Your task to perform on an android device: Search for logitech g pro on target.com, select the first entry, add it to the cart, then select checkout. Image 0: 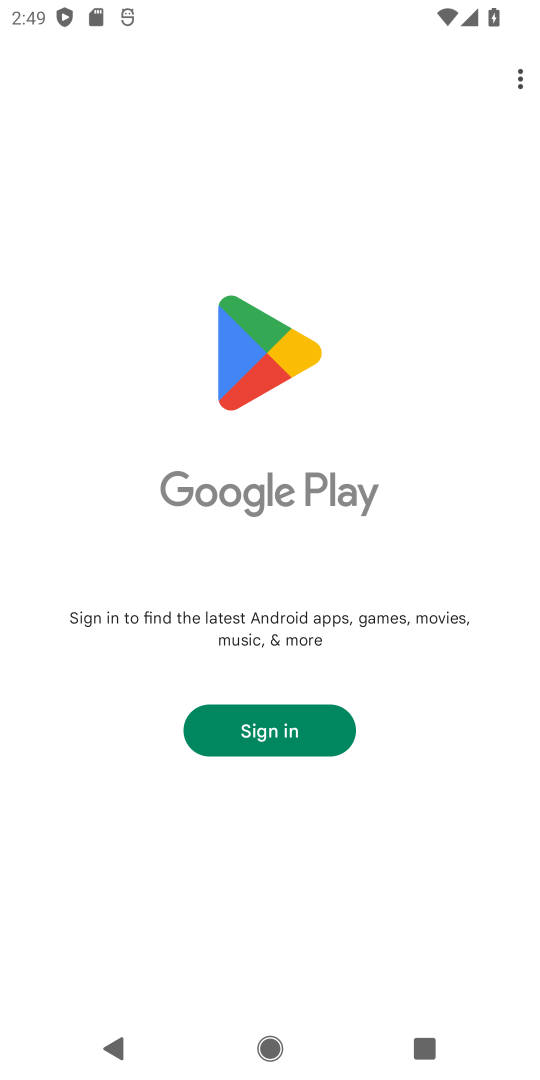
Step 0: press home button
Your task to perform on an android device: Search for logitech g pro on target.com, select the first entry, add it to the cart, then select checkout. Image 1: 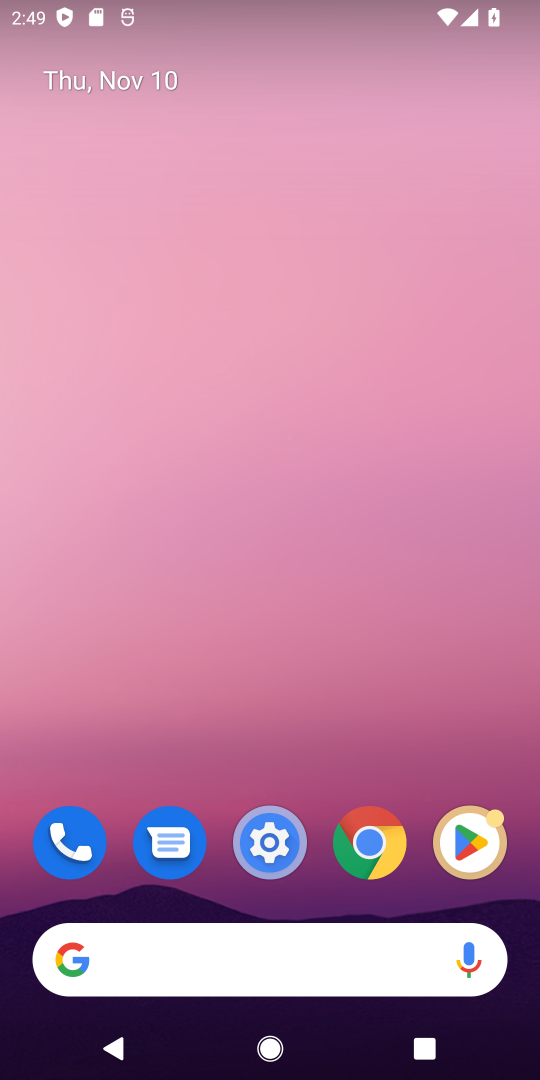
Step 1: click (185, 953)
Your task to perform on an android device: Search for logitech g pro on target.com, select the first entry, add it to the cart, then select checkout. Image 2: 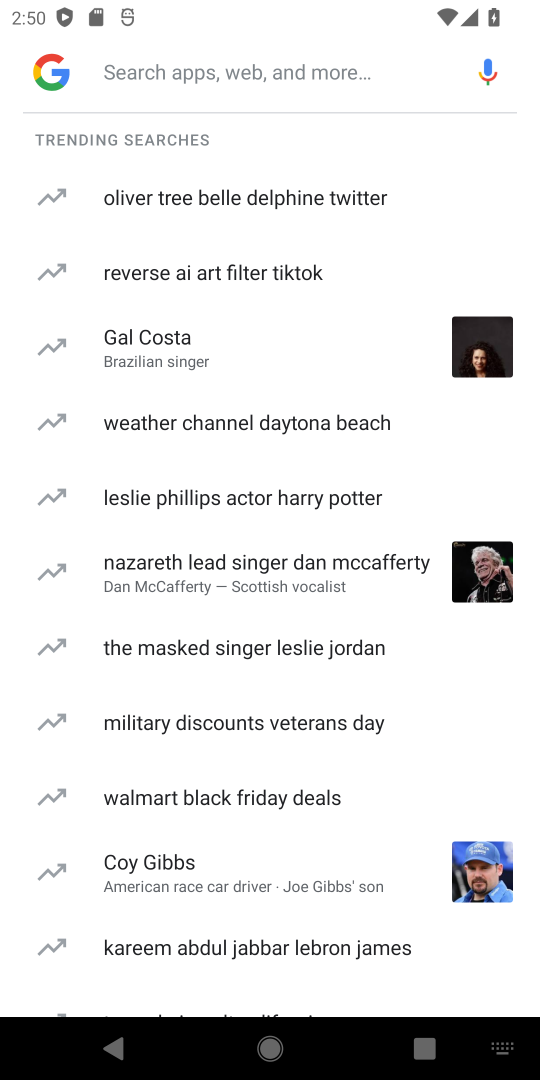
Step 2: type " target.com,"
Your task to perform on an android device: Search for logitech g pro on target.com, select the first entry, add it to the cart, then select checkout. Image 3: 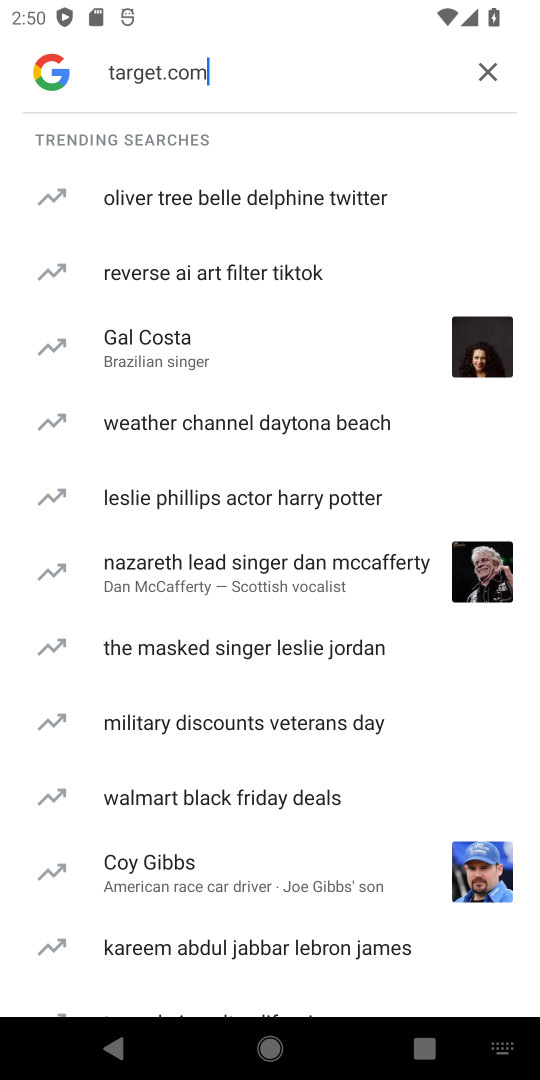
Step 3: press enter
Your task to perform on an android device: Search for logitech g pro on target.com, select the first entry, add it to the cart, then select checkout. Image 4: 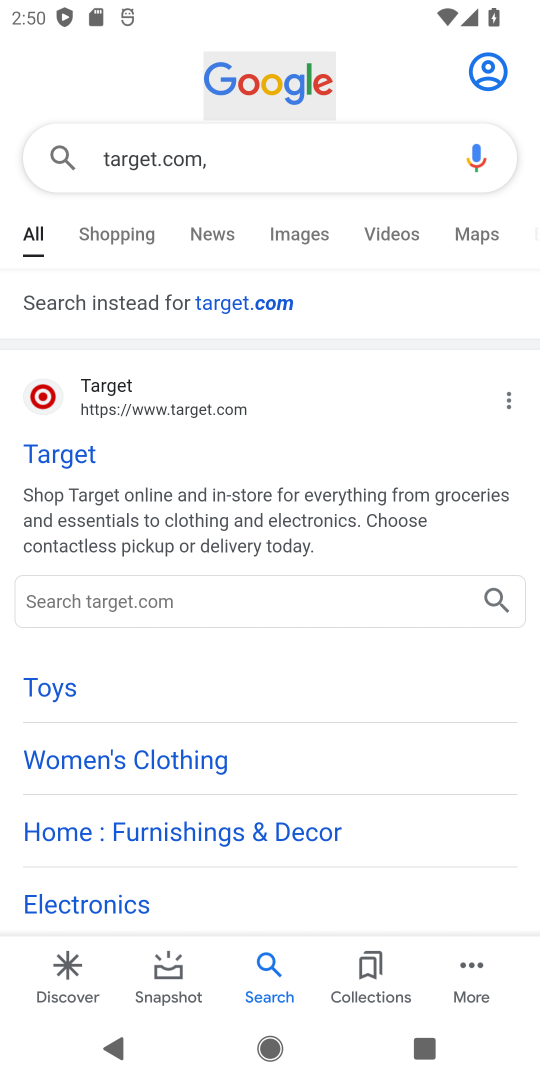
Step 4: click (58, 447)
Your task to perform on an android device: Search for logitech g pro on target.com, select the first entry, add it to the cart, then select checkout. Image 5: 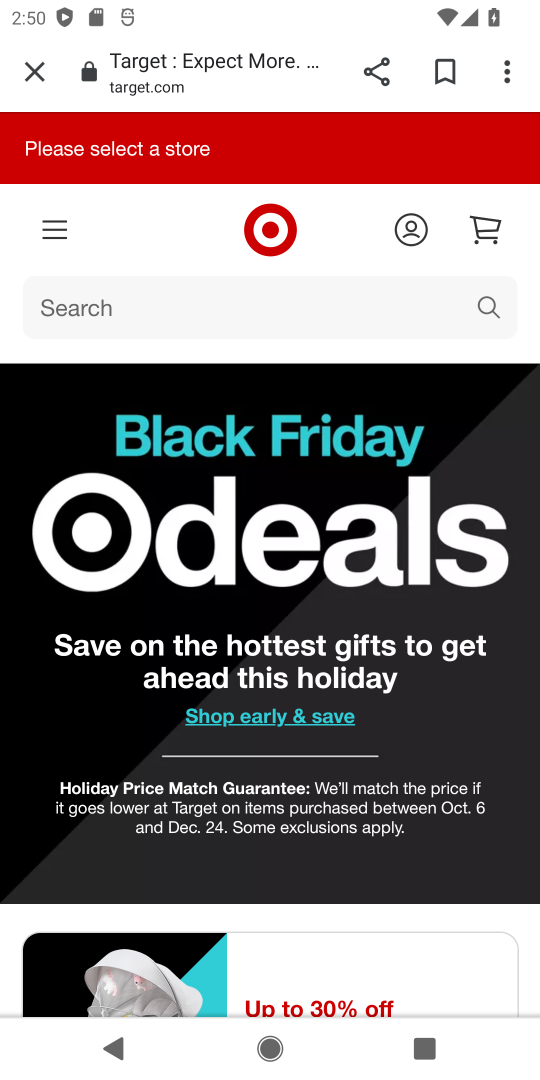
Step 5: click (83, 318)
Your task to perform on an android device: Search for logitech g pro on target.com, select the first entry, add it to the cart, then select checkout. Image 6: 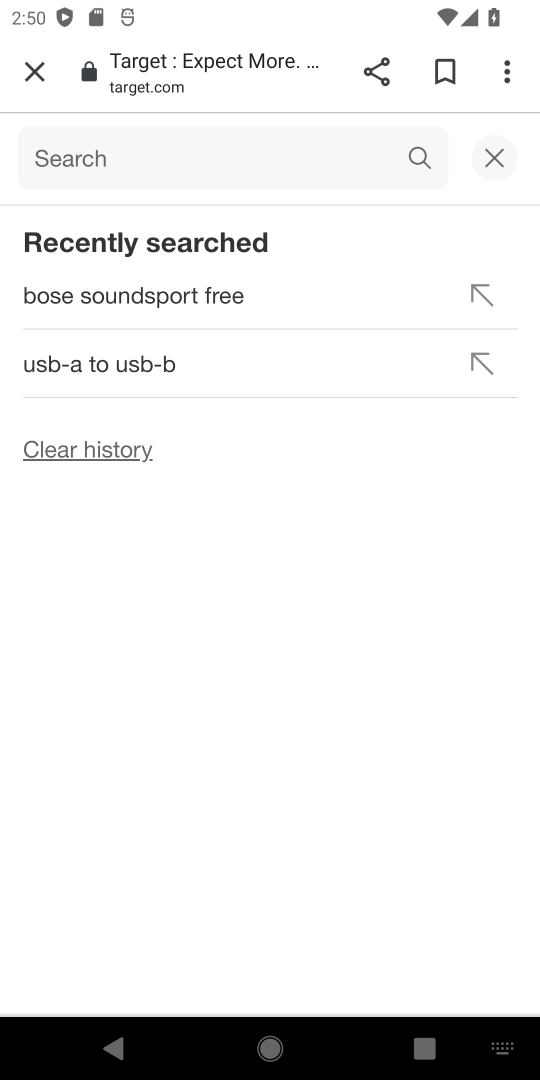
Step 6: type "logitech g pro"
Your task to perform on an android device: Search for logitech g pro on target.com, select the first entry, add it to the cart, then select checkout. Image 7: 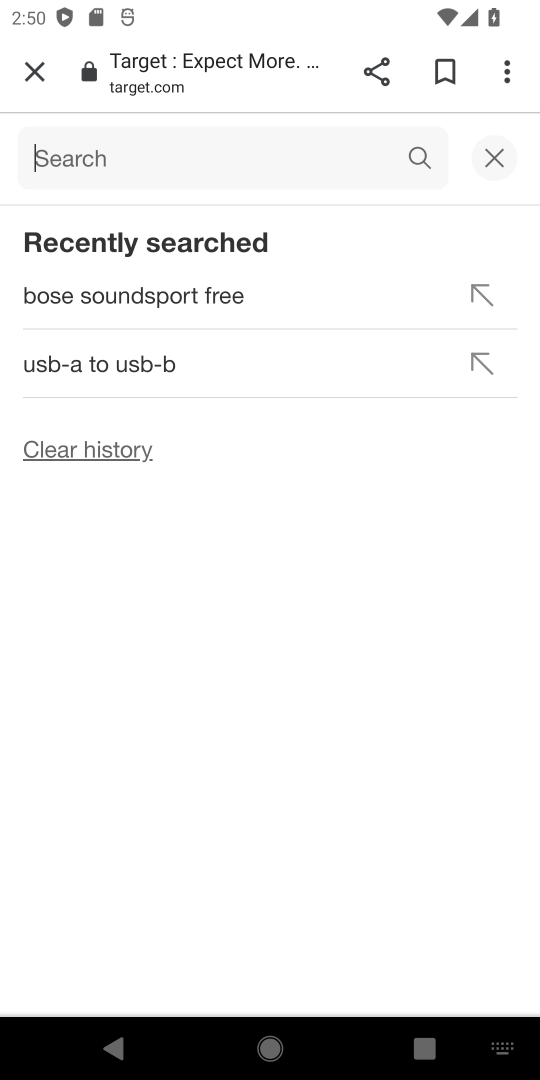
Step 7: press enter
Your task to perform on an android device: Search for logitech g pro on target.com, select the first entry, add it to the cart, then select checkout. Image 8: 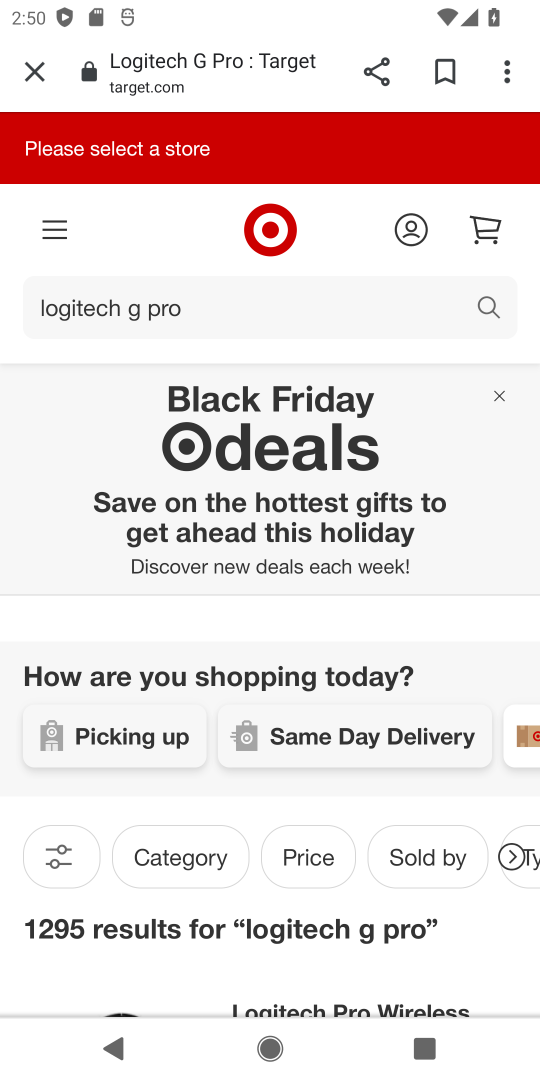
Step 8: drag from (338, 933) to (332, 397)
Your task to perform on an android device: Search for logitech g pro on target.com, select the first entry, add it to the cart, then select checkout. Image 9: 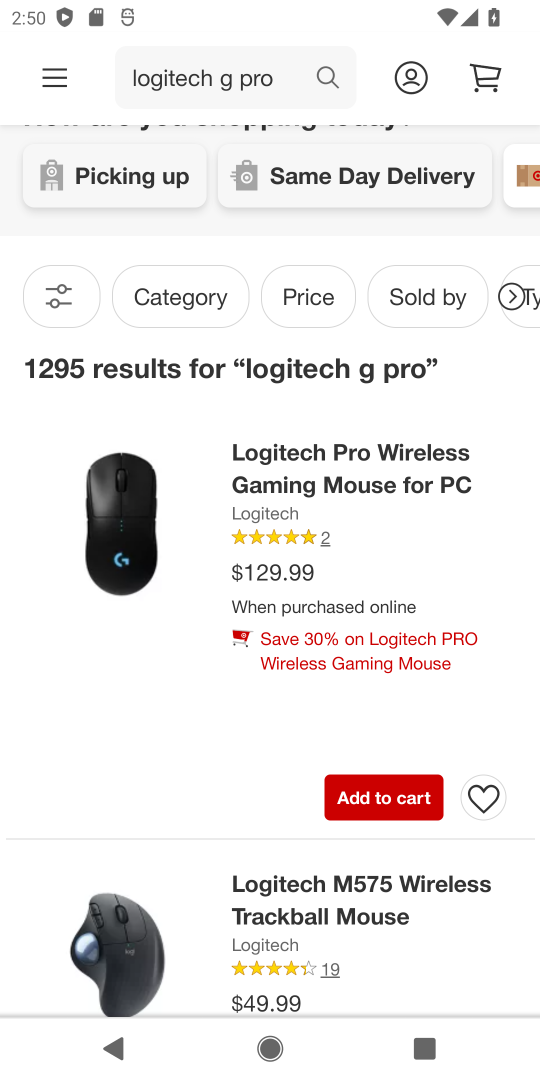
Step 9: drag from (259, 915) to (269, 636)
Your task to perform on an android device: Search for logitech g pro on target.com, select the first entry, add it to the cart, then select checkout. Image 10: 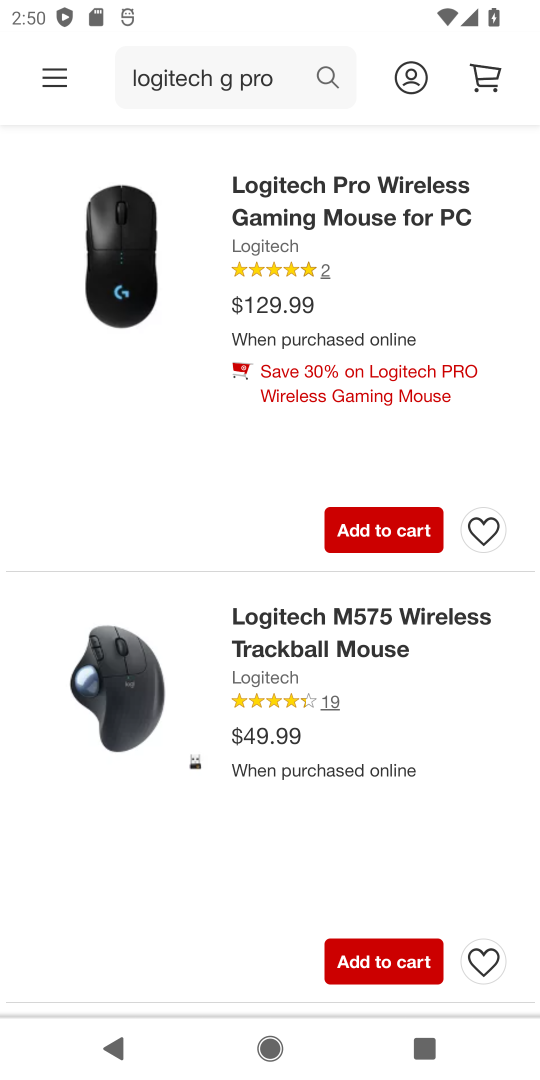
Step 10: click (372, 532)
Your task to perform on an android device: Search for logitech g pro on target.com, select the first entry, add it to the cart, then select checkout. Image 11: 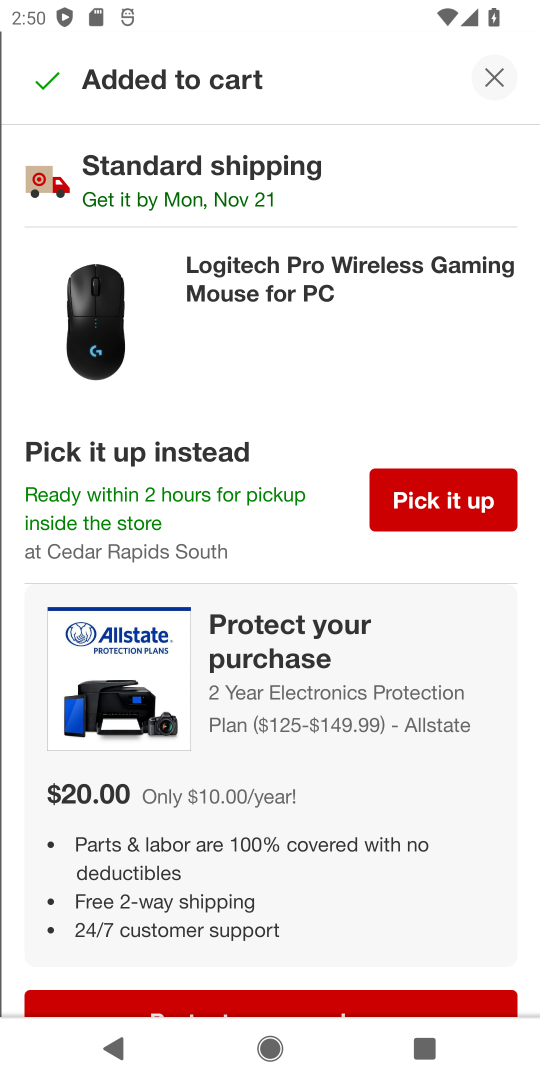
Step 11: drag from (333, 863) to (325, 553)
Your task to perform on an android device: Search for logitech g pro on target.com, select the first entry, add it to the cart, then select checkout. Image 12: 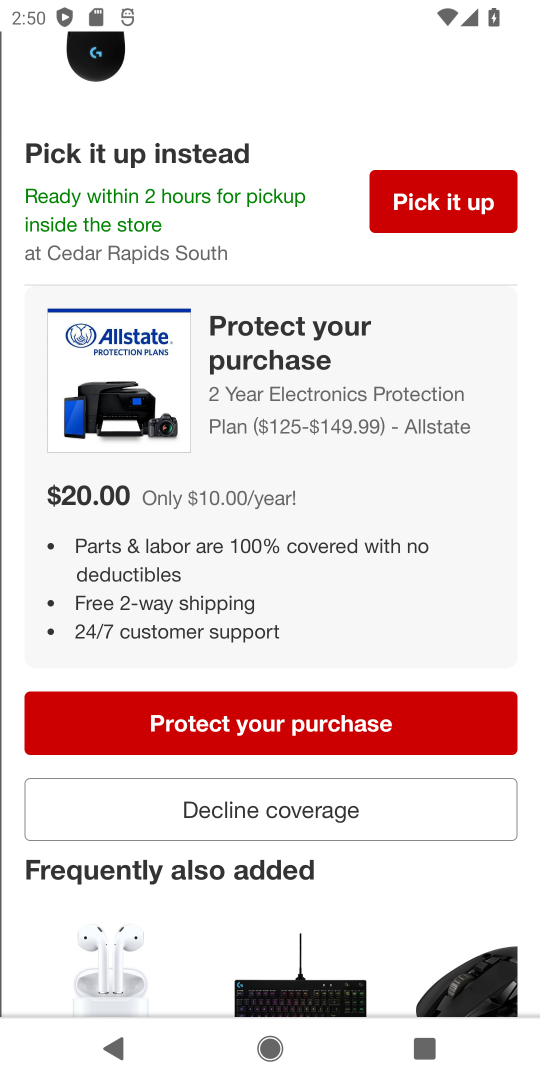
Step 12: click (194, 724)
Your task to perform on an android device: Search for logitech g pro on target.com, select the first entry, add it to the cart, then select checkout. Image 13: 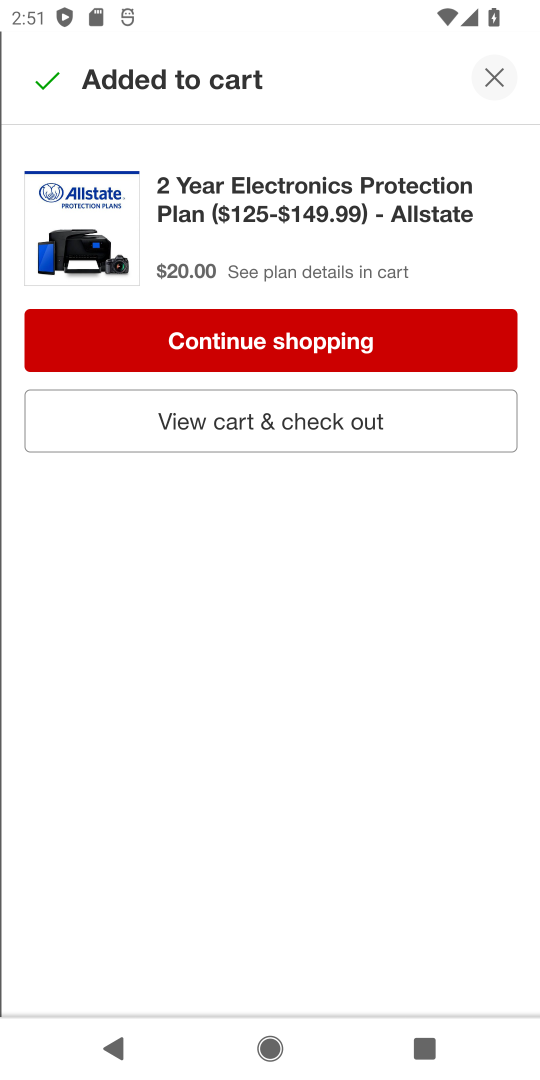
Step 13: click (286, 413)
Your task to perform on an android device: Search for logitech g pro on target.com, select the first entry, add it to the cart, then select checkout. Image 14: 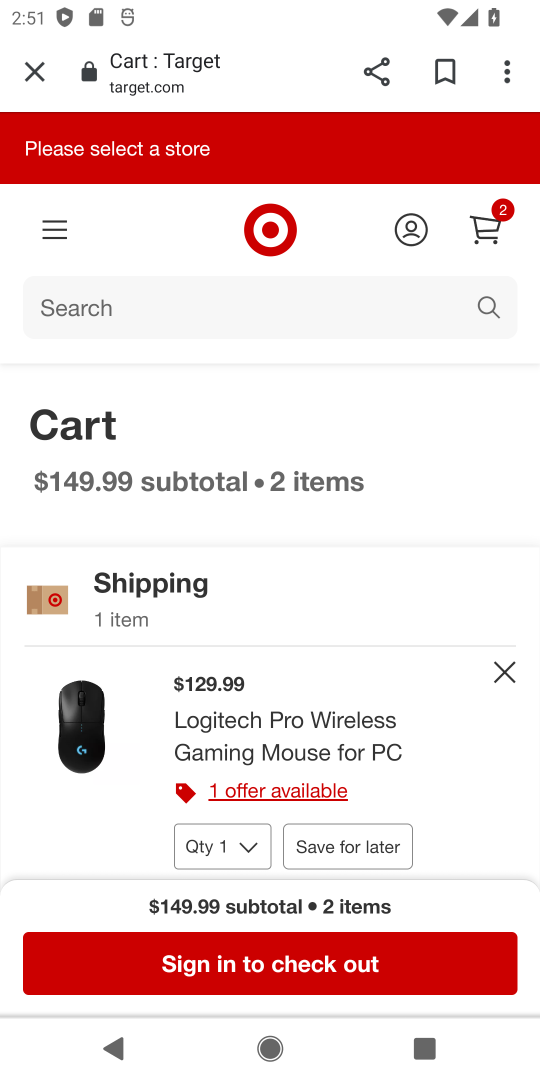
Step 14: click (353, 968)
Your task to perform on an android device: Search for logitech g pro on target.com, select the first entry, add it to the cart, then select checkout. Image 15: 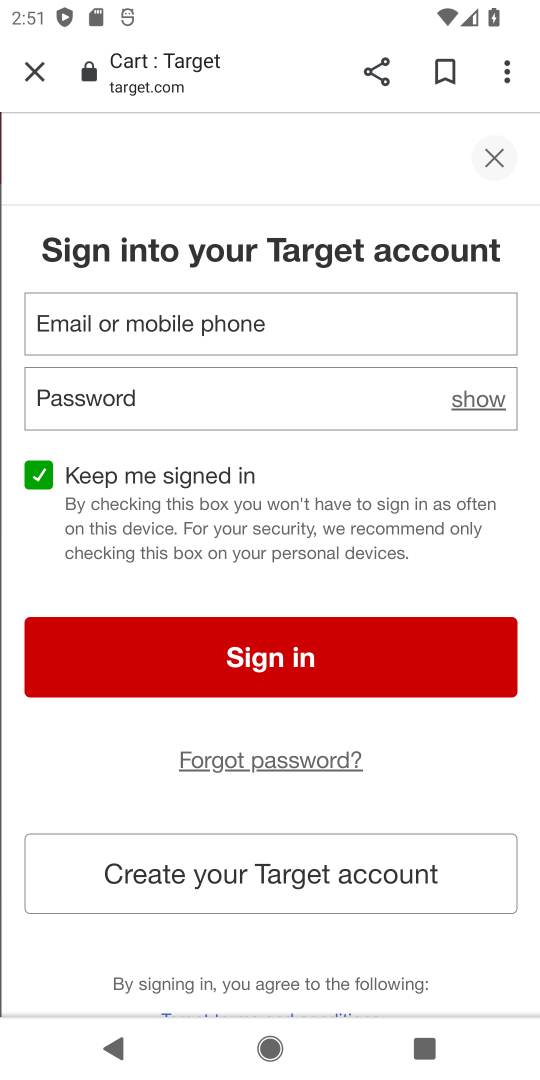
Step 15: task complete